Your task to perform on an android device: Open Google Chrome and open the bookmarks view Image 0: 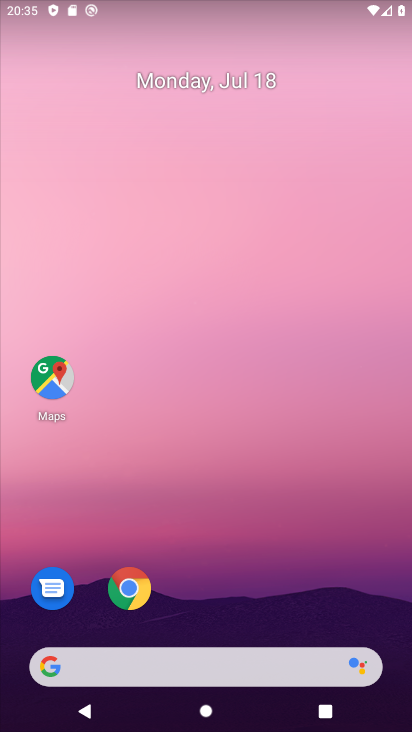
Step 0: press home button
Your task to perform on an android device: Open Google Chrome and open the bookmarks view Image 1: 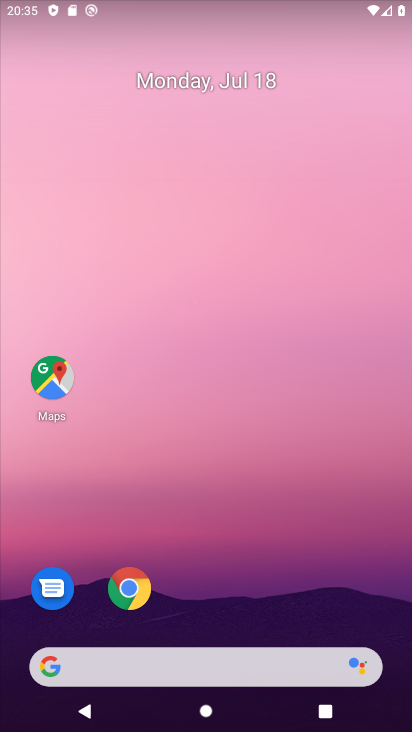
Step 1: click (133, 593)
Your task to perform on an android device: Open Google Chrome and open the bookmarks view Image 2: 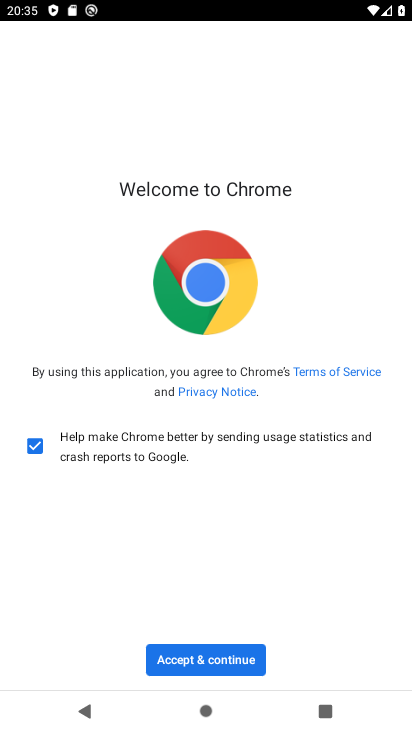
Step 2: click (201, 652)
Your task to perform on an android device: Open Google Chrome and open the bookmarks view Image 3: 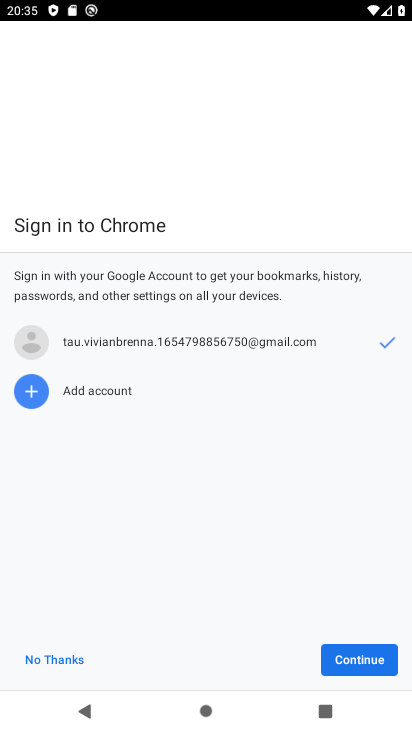
Step 3: click (369, 655)
Your task to perform on an android device: Open Google Chrome and open the bookmarks view Image 4: 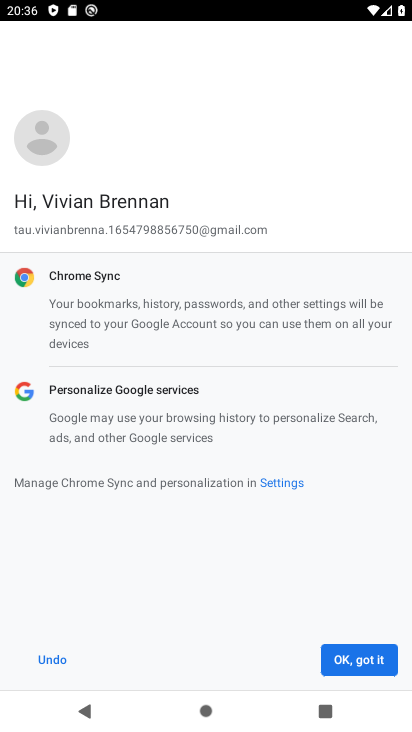
Step 4: click (353, 665)
Your task to perform on an android device: Open Google Chrome and open the bookmarks view Image 5: 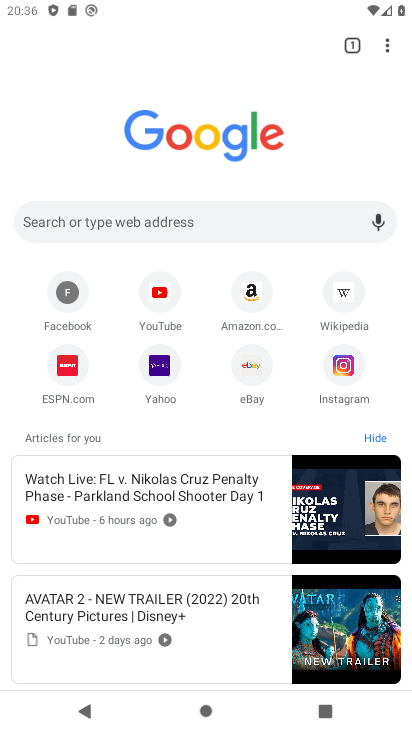
Step 5: task complete